Your task to perform on an android device: Open battery settings Image 0: 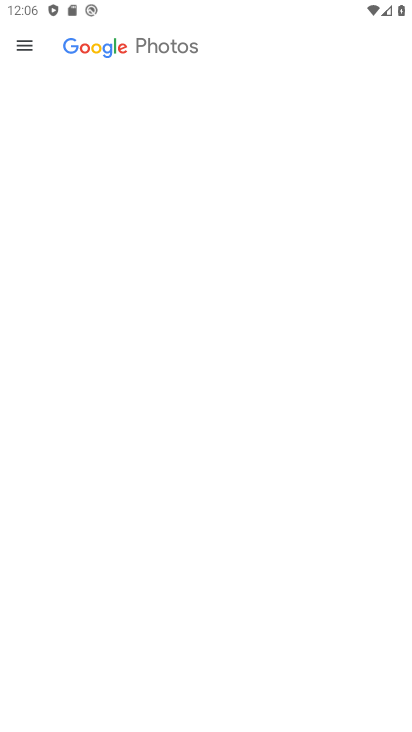
Step 0: press back button
Your task to perform on an android device: Open battery settings Image 1: 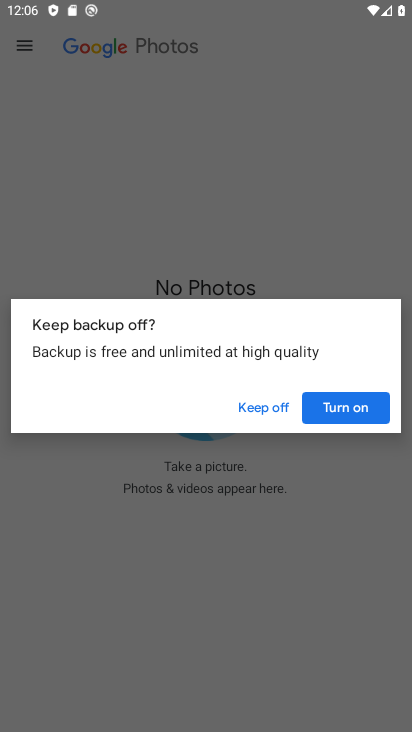
Step 1: press home button
Your task to perform on an android device: Open battery settings Image 2: 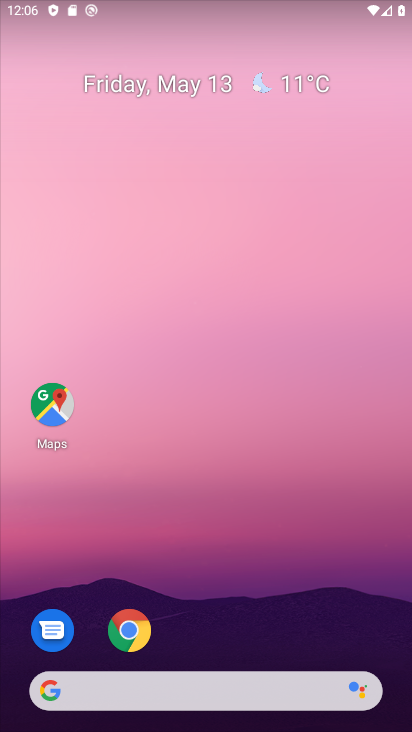
Step 2: drag from (141, 415) to (300, 104)
Your task to perform on an android device: Open battery settings Image 3: 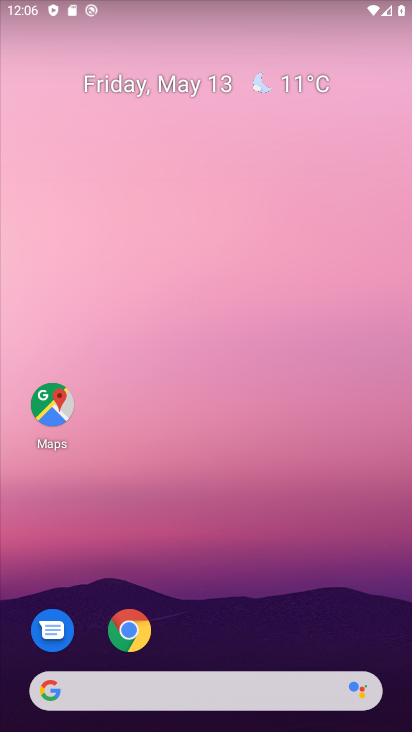
Step 3: drag from (50, 588) to (246, 275)
Your task to perform on an android device: Open battery settings Image 4: 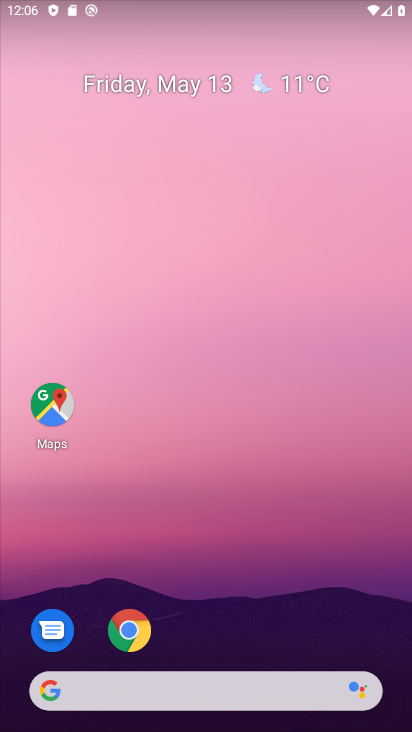
Step 4: drag from (131, 402) to (319, 75)
Your task to perform on an android device: Open battery settings Image 5: 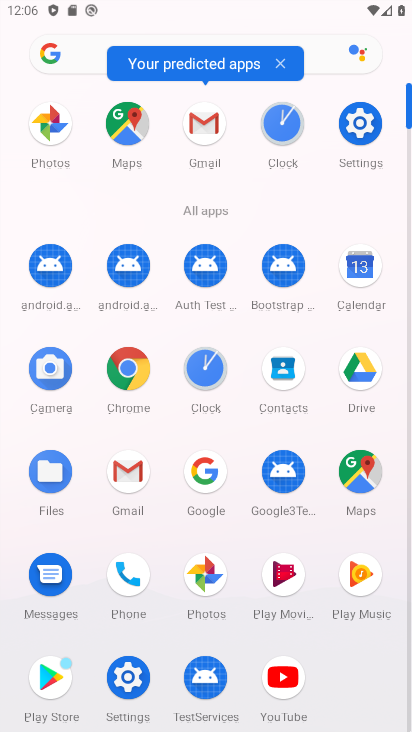
Step 5: click (357, 135)
Your task to perform on an android device: Open battery settings Image 6: 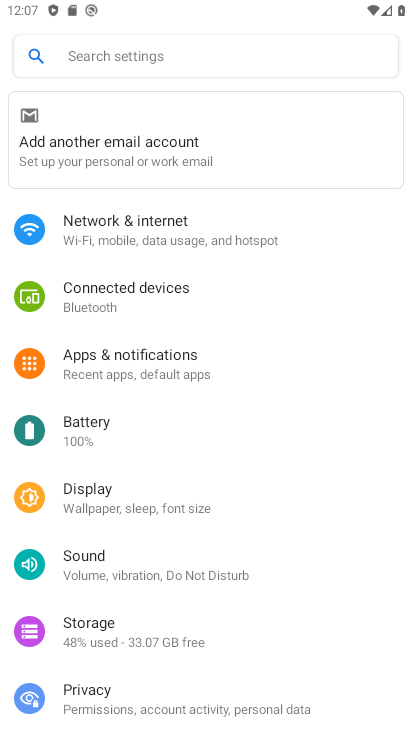
Step 6: click (137, 436)
Your task to perform on an android device: Open battery settings Image 7: 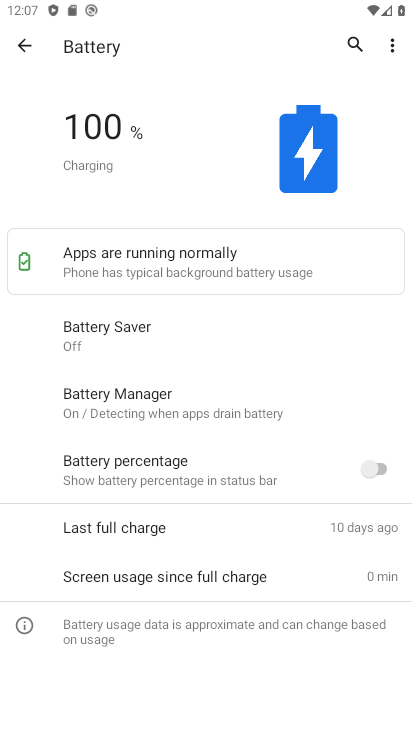
Step 7: task complete